Your task to perform on an android device: empty trash in the gmail app Image 0: 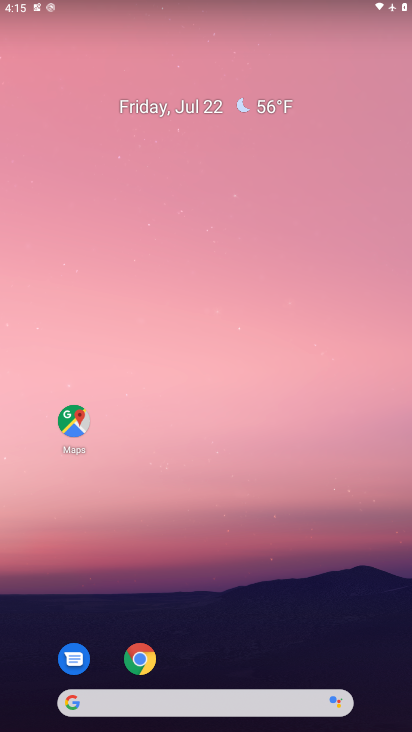
Step 0: drag from (162, 689) to (222, 155)
Your task to perform on an android device: empty trash in the gmail app Image 1: 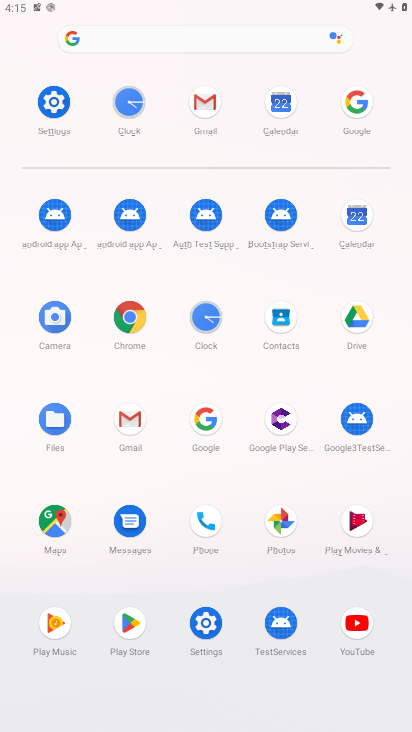
Step 1: click (134, 415)
Your task to perform on an android device: empty trash in the gmail app Image 2: 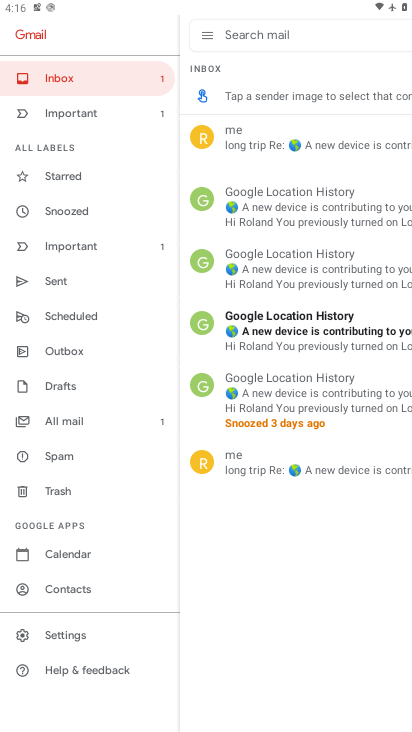
Step 2: click (38, 491)
Your task to perform on an android device: empty trash in the gmail app Image 3: 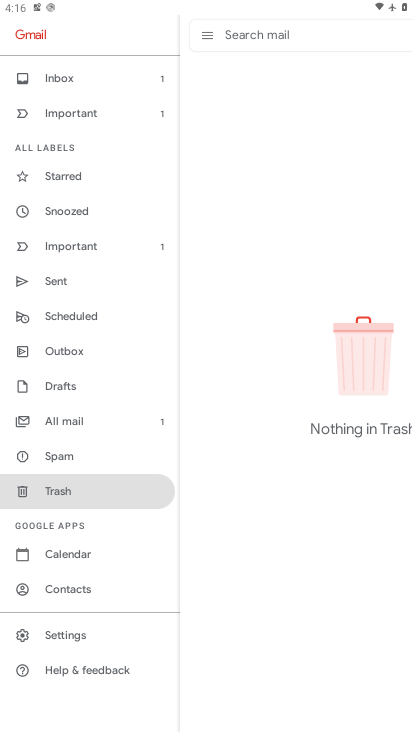
Step 3: task complete